Your task to perform on an android device: Toggle the flashlight Image 0: 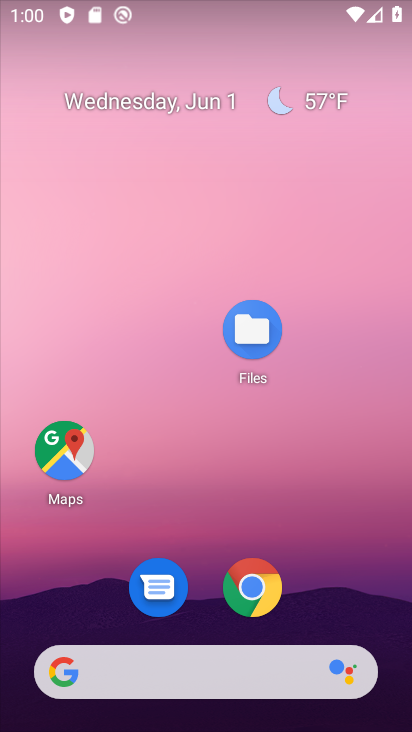
Step 0: drag from (375, 11) to (373, 586)
Your task to perform on an android device: Toggle the flashlight Image 1: 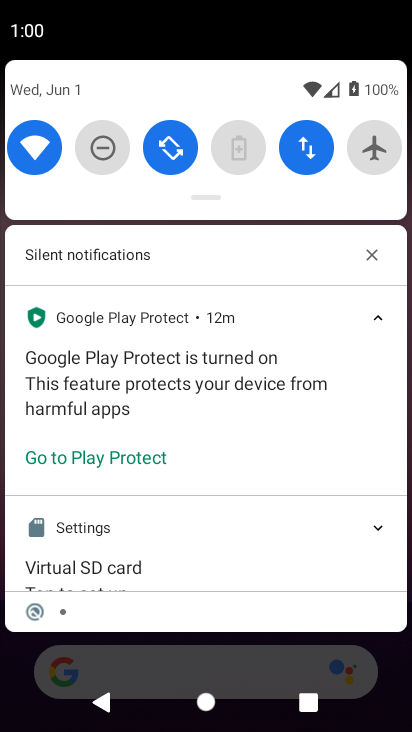
Step 1: task complete